Your task to perform on an android device: Show me recent news Image 0: 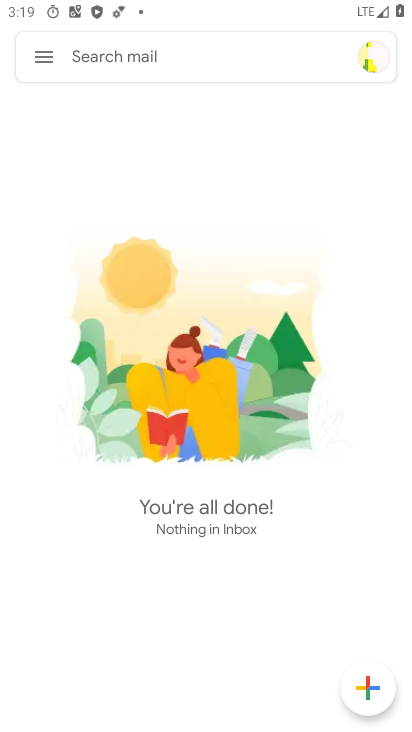
Step 0: press home button
Your task to perform on an android device: Show me recent news Image 1: 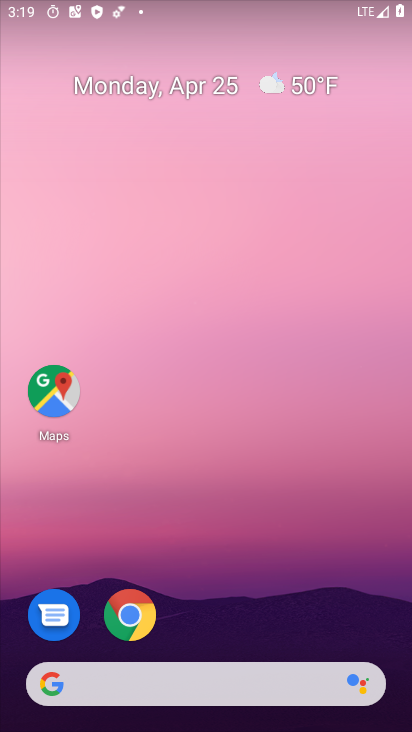
Step 1: task complete